Your task to perform on an android device: Go to sound settings Image 0: 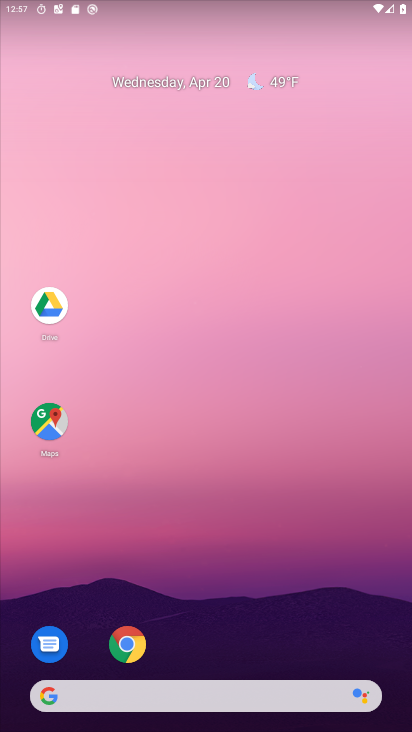
Step 0: drag from (214, 540) to (212, 33)
Your task to perform on an android device: Go to sound settings Image 1: 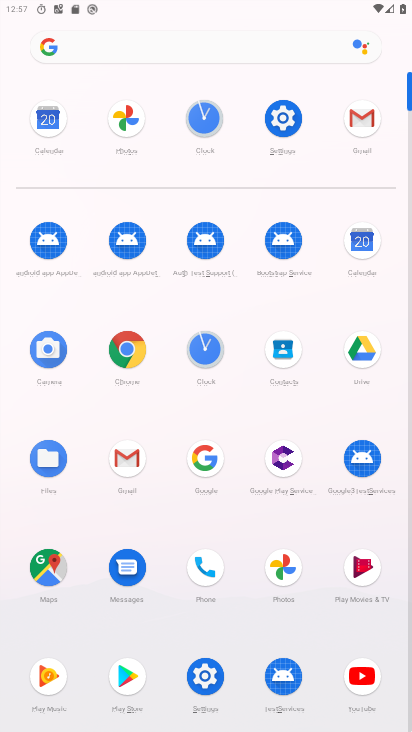
Step 1: click (283, 109)
Your task to perform on an android device: Go to sound settings Image 2: 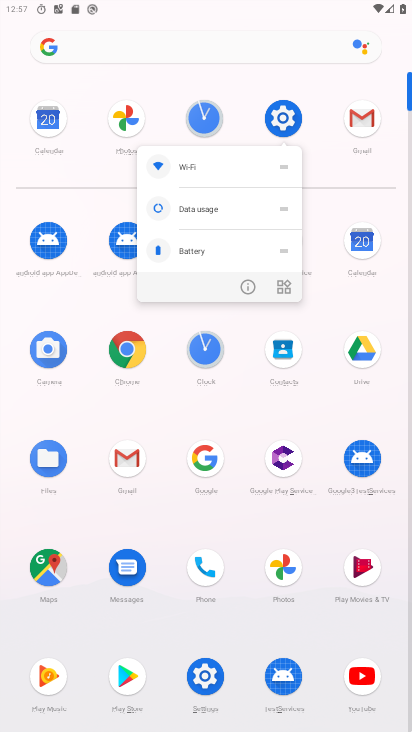
Step 2: click (279, 116)
Your task to perform on an android device: Go to sound settings Image 3: 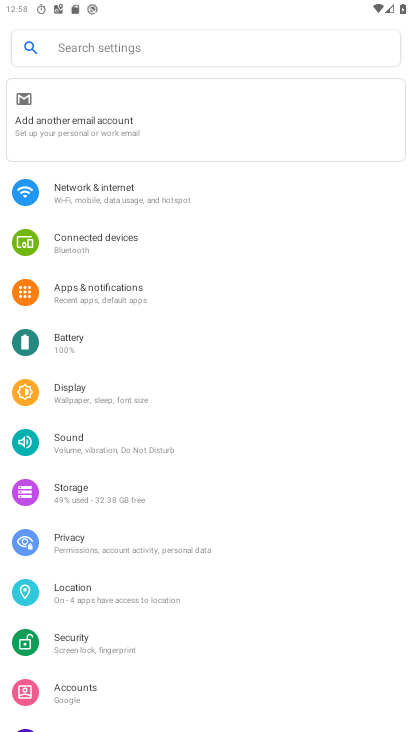
Step 3: click (120, 443)
Your task to perform on an android device: Go to sound settings Image 4: 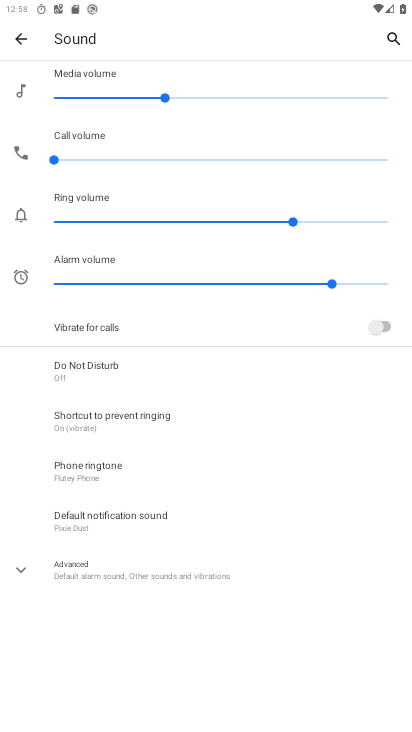
Step 4: task complete